Your task to perform on an android device: set the stopwatch Image 0: 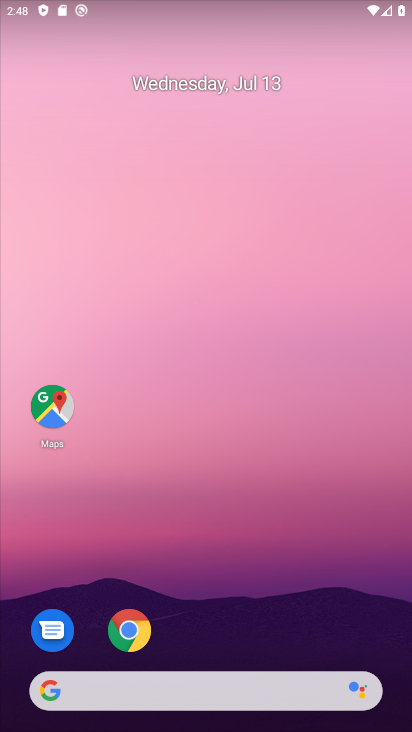
Step 0: click (106, 688)
Your task to perform on an android device: set the stopwatch Image 1: 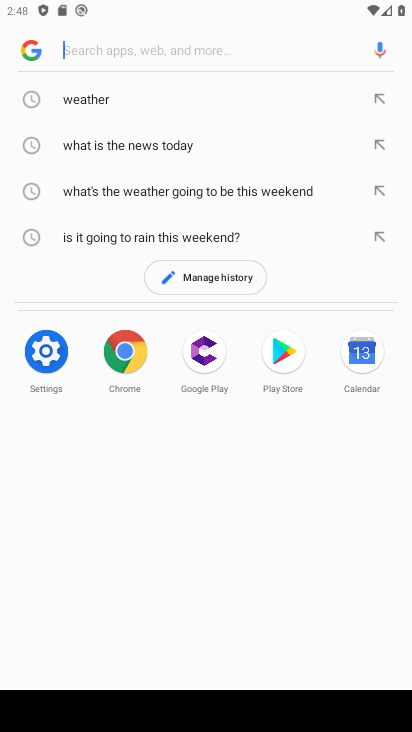
Step 1: press home button
Your task to perform on an android device: set the stopwatch Image 2: 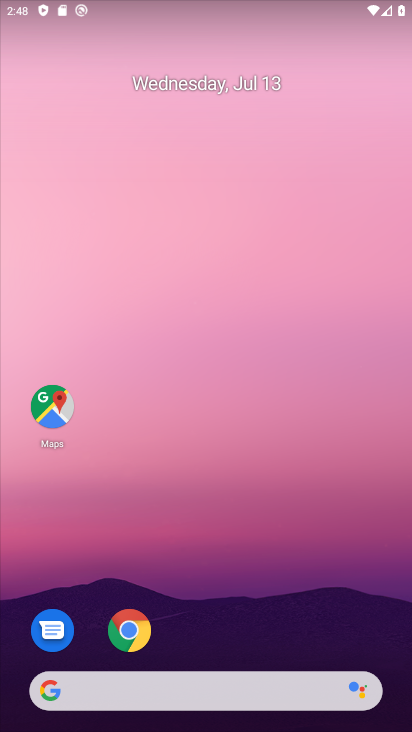
Step 2: drag from (122, 574) to (311, 97)
Your task to perform on an android device: set the stopwatch Image 3: 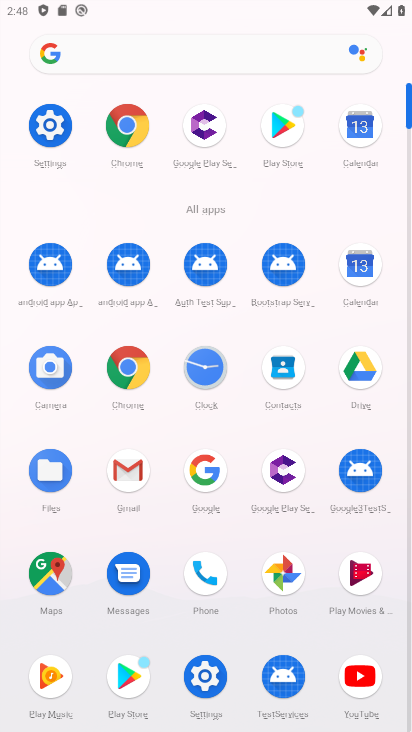
Step 3: click (193, 369)
Your task to perform on an android device: set the stopwatch Image 4: 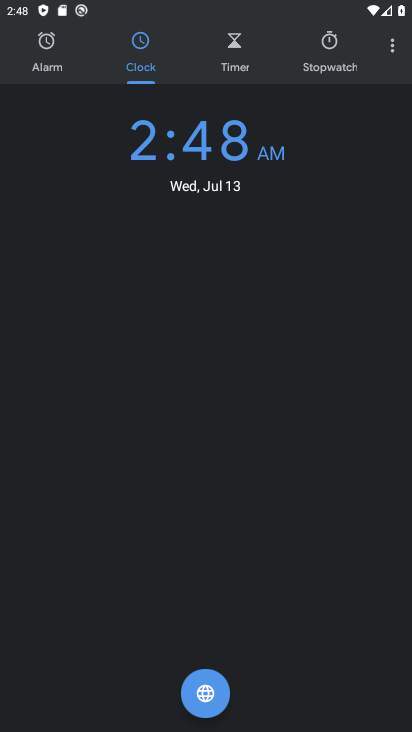
Step 4: click (333, 45)
Your task to perform on an android device: set the stopwatch Image 5: 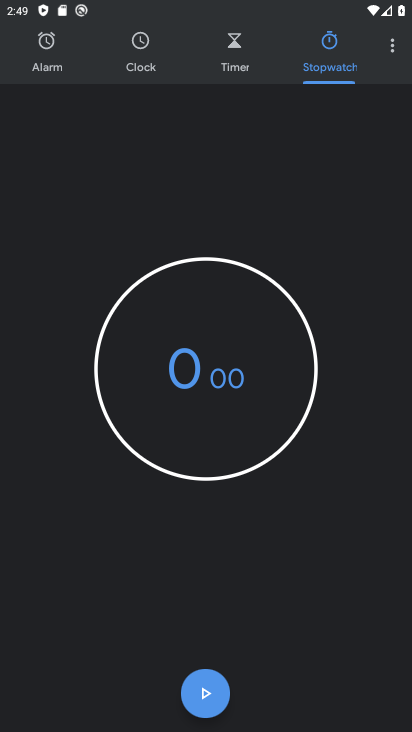
Step 5: click (177, 318)
Your task to perform on an android device: set the stopwatch Image 6: 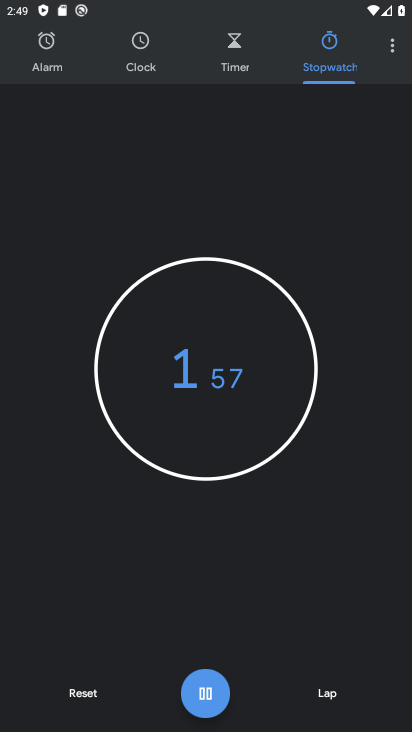
Step 6: click (206, 698)
Your task to perform on an android device: set the stopwatch Image 7: 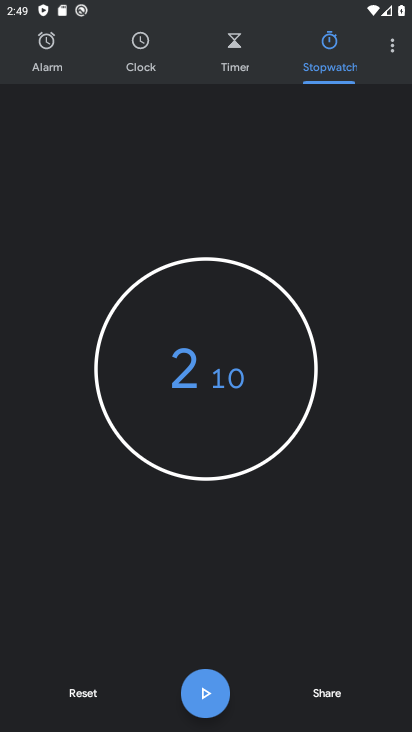
Step 7: task complete